Your task to perform on an android device: Go to Reddit.com Image 0: 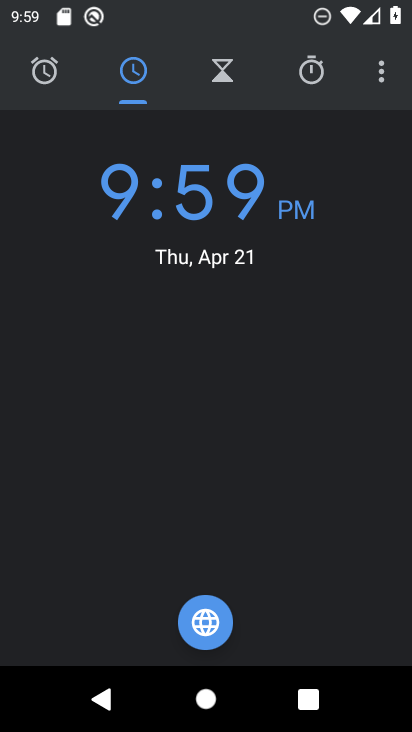
Step 0: press home button
Your task to perform on an android device: Go to Reddit.com Image 1: 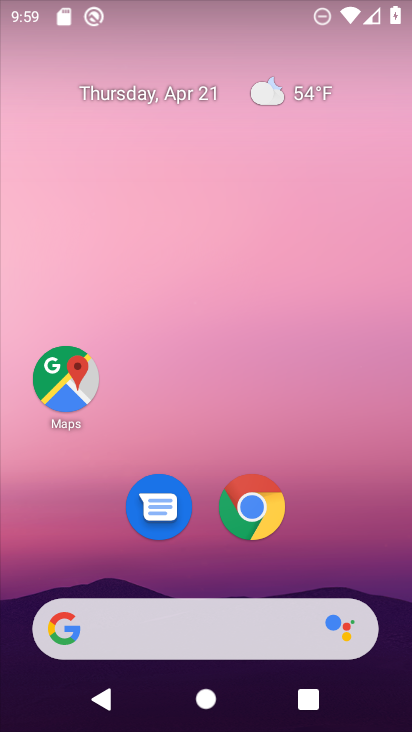
Step 1: click (241, 511)
Your task to perform on an android device: Go to Reddit.com Image 2: 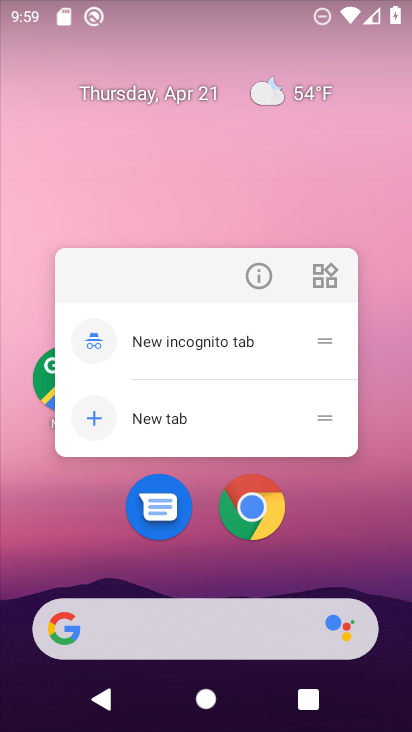
Step 2: click (254, 517)
Your task to perform on an android device: Go to Reddit.com Image 3: 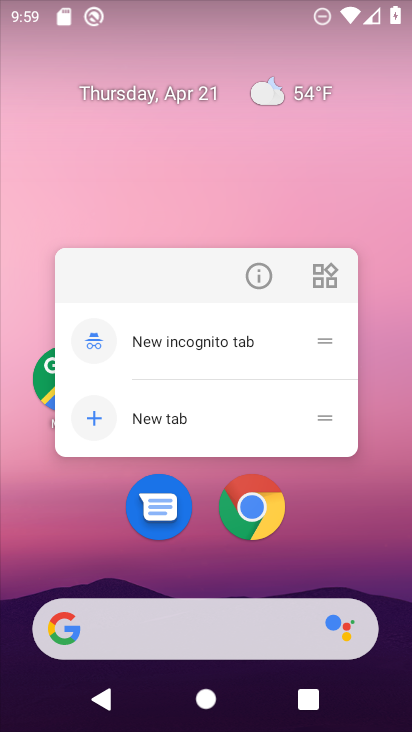
Step 3: click (257, 508)
Your task to perform on an android device: Go to Reddit.com Image 4: 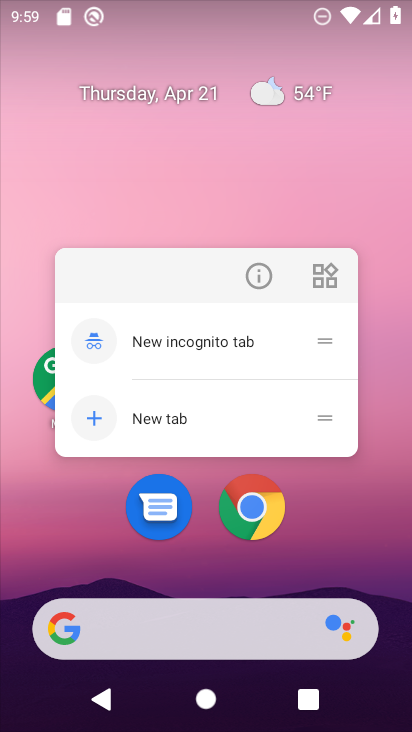
Step 4: click (260, 522)
Your task to perform on an android device: Go to Reddit.com Image 5: 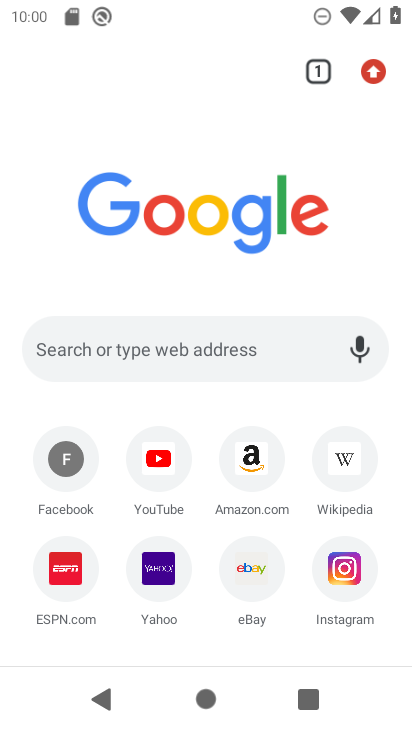
Step 5: click (149, 356)
Your task to perform on an android device: Go to Reddit.com Image 6: 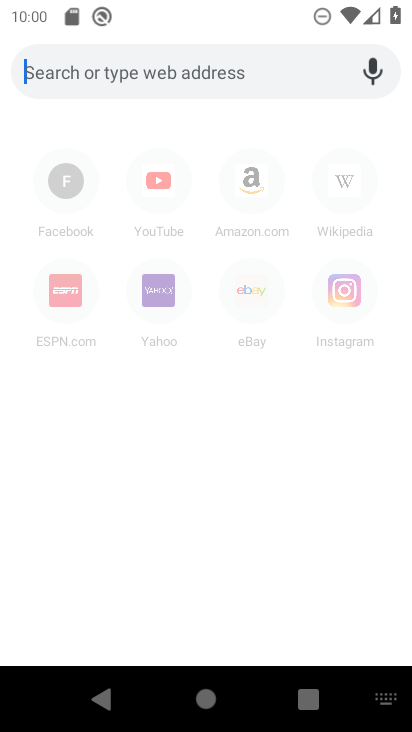
Step 6: type "reddit.com"
Your task to perform on an android device: Go to Reddit.com Image 7: 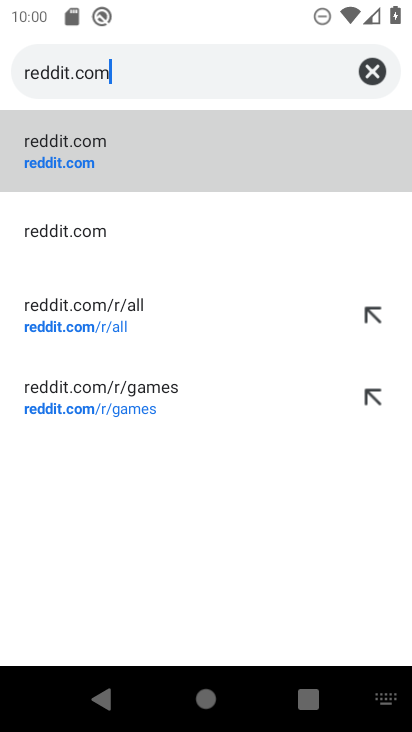
Step 7: click (84, 159)
Your task to perform on an android device: Go to Reddit.com Image 8: 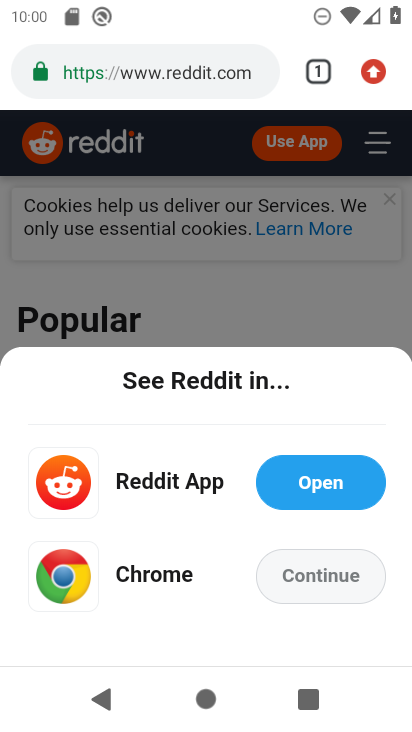
Step 8: task complete